Your task to perform on an android device: Open Google Chrome and open the bookmarks view Image 0: 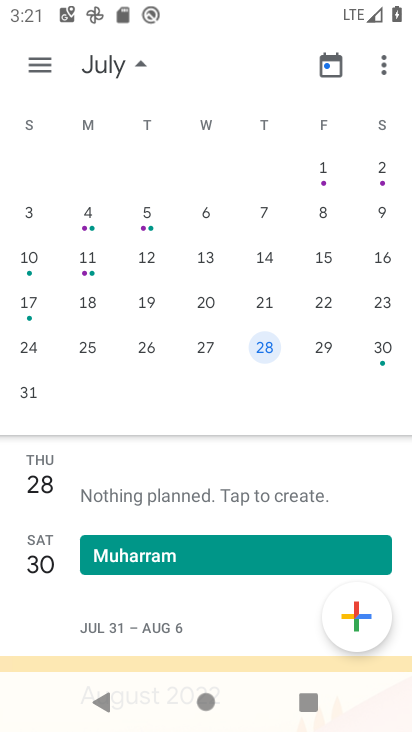
Step 0: press home button
Your task to perform on an android device: Open Google Chrome and open the bookmarks view Image 1: 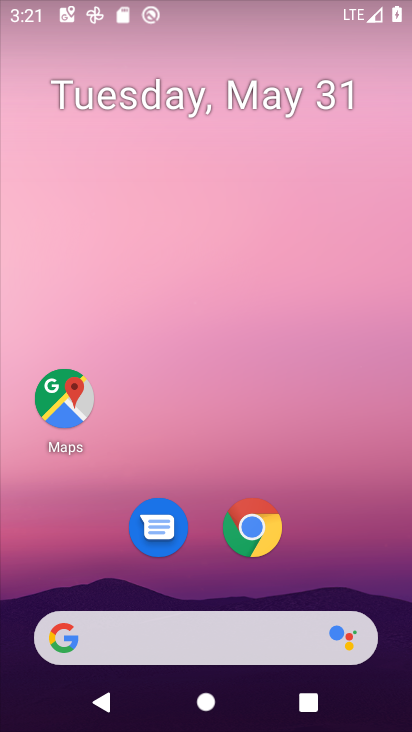
Step 1: drag from (368, 551) to (319, 58)
Your task to perform on an android device: Open Google Chrome and open the bookmarks view Image 2: 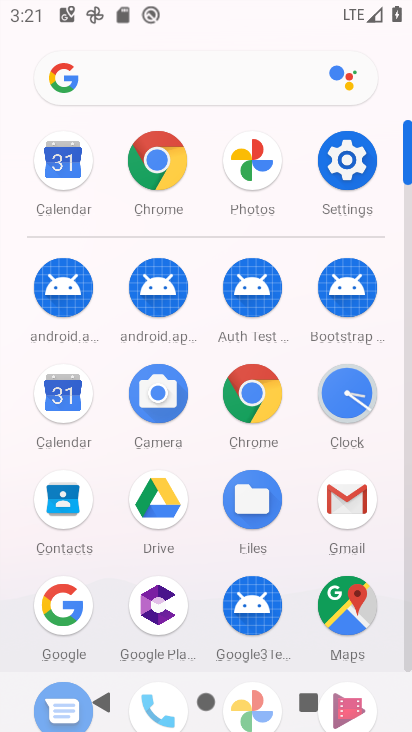
Step 2: click (146, 160)
Your task to perform on an android device: Open Google Chrome and open the bookmarks view Image 3: 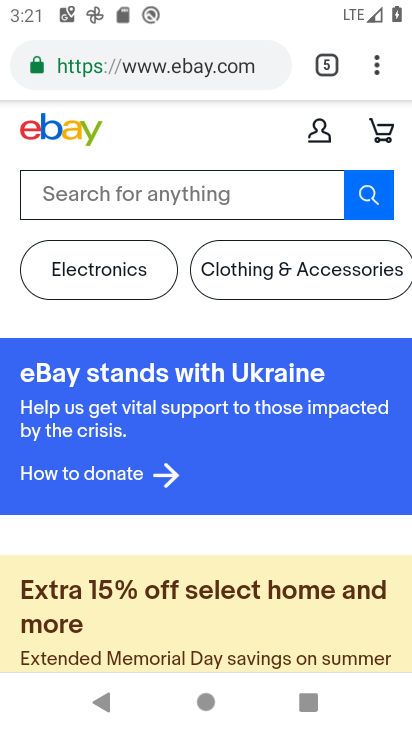
Step 3: task complete